Your task to perform on an android device: Go to settings Image 0: 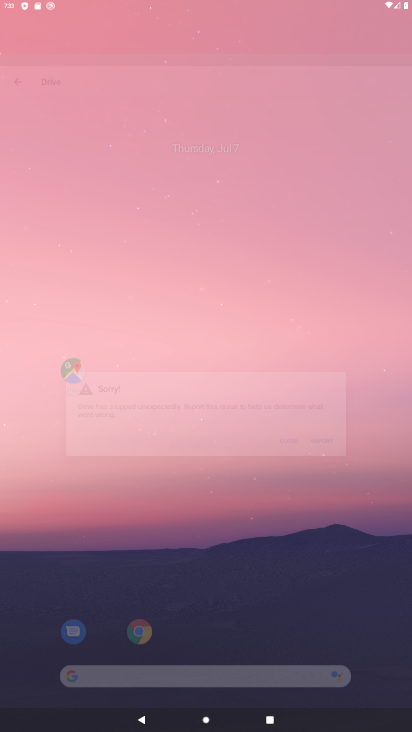
Step 0: press home button
Your task to perform on an android device: Go to settings Image 1: 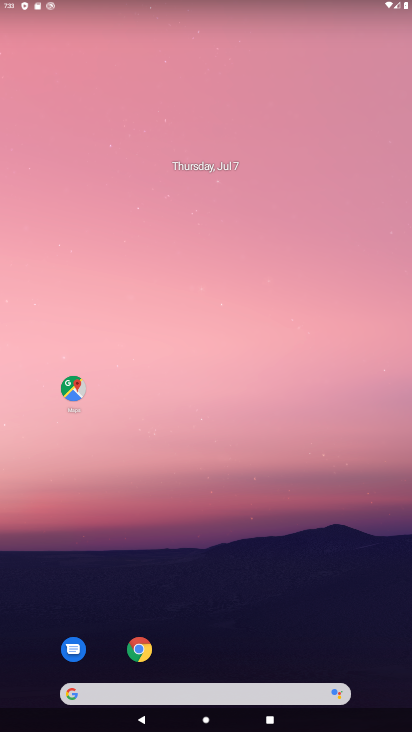
Step 1: drag from (239, 661) to (272, 28)
Your task to perform on an android device: Go to settings Image 2: 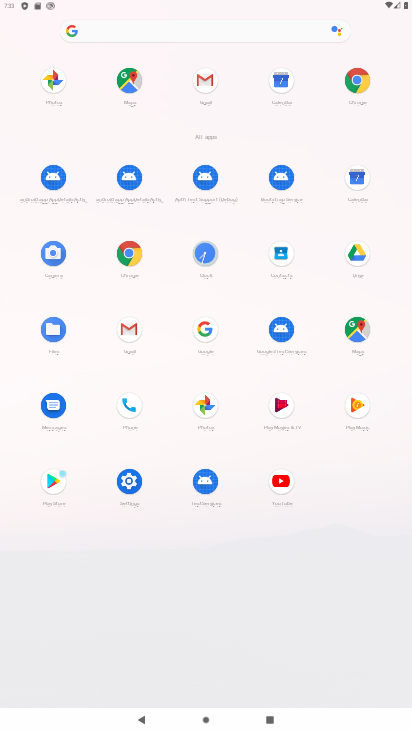
Step 2: click (121, 483)
Your task to perform on an android device: Go to settings Image 3: 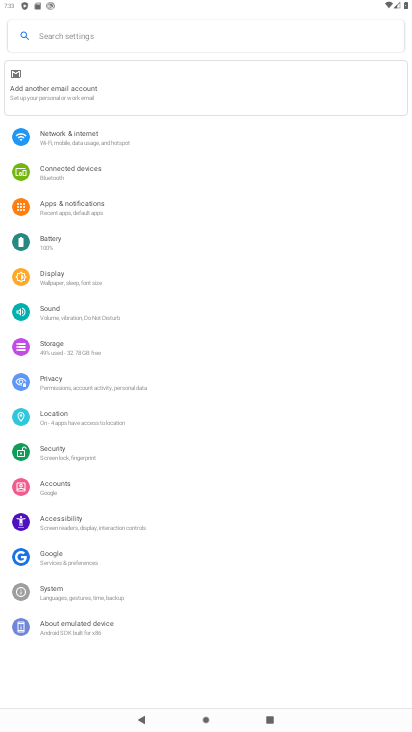
Step 3: task complete